Your task to perform on an android device: Go to internet settings Image 0: 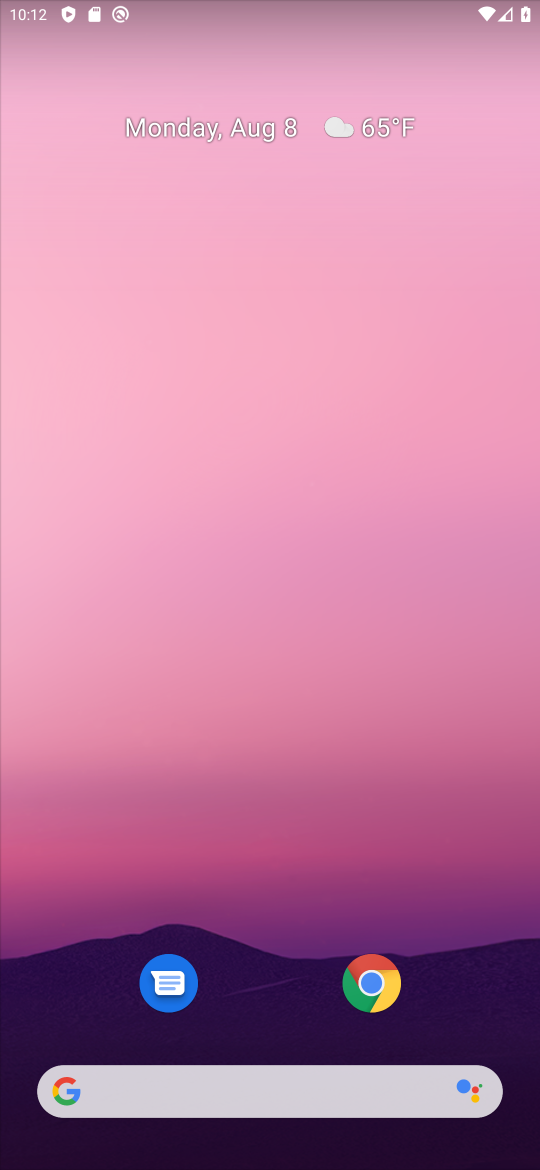
Step 0: drag from (253, 1044) to (281, 214)
Your task to perform on an android device: Go to internet settings Image 1: 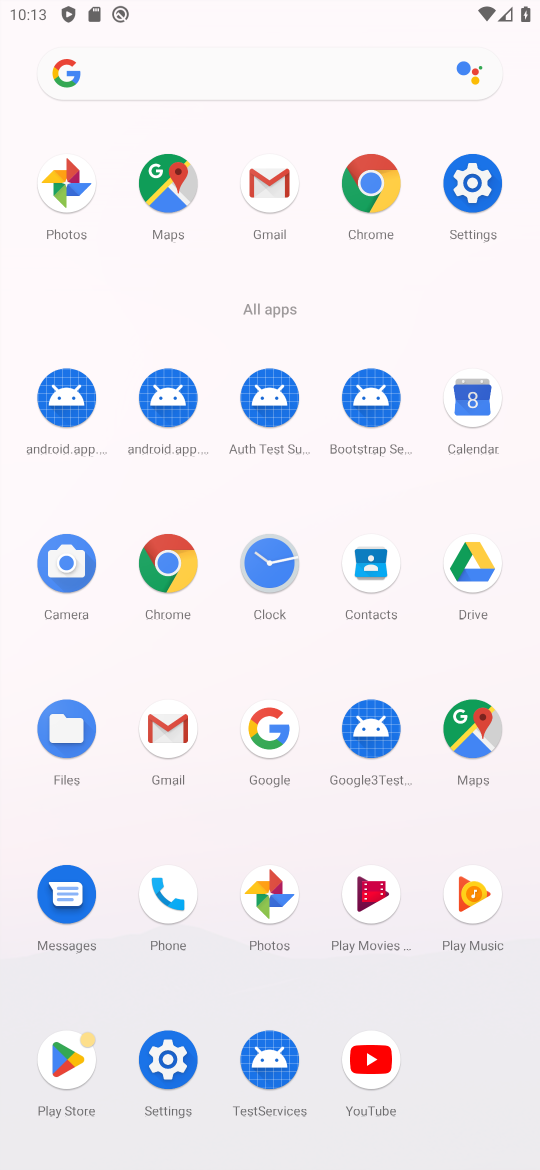
Step 1: click (495, 202)
Your task to perform on an android device: Go to internet settings Image 2: 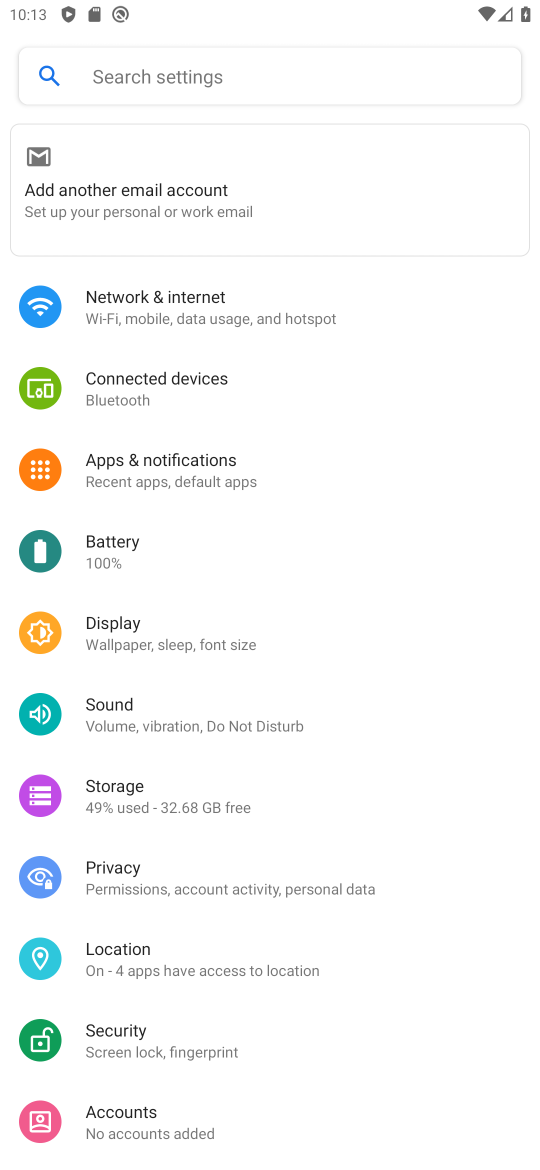
Step 2: click (270, 268)
Your task to perform on an android device: Go to internet settings Image 3: 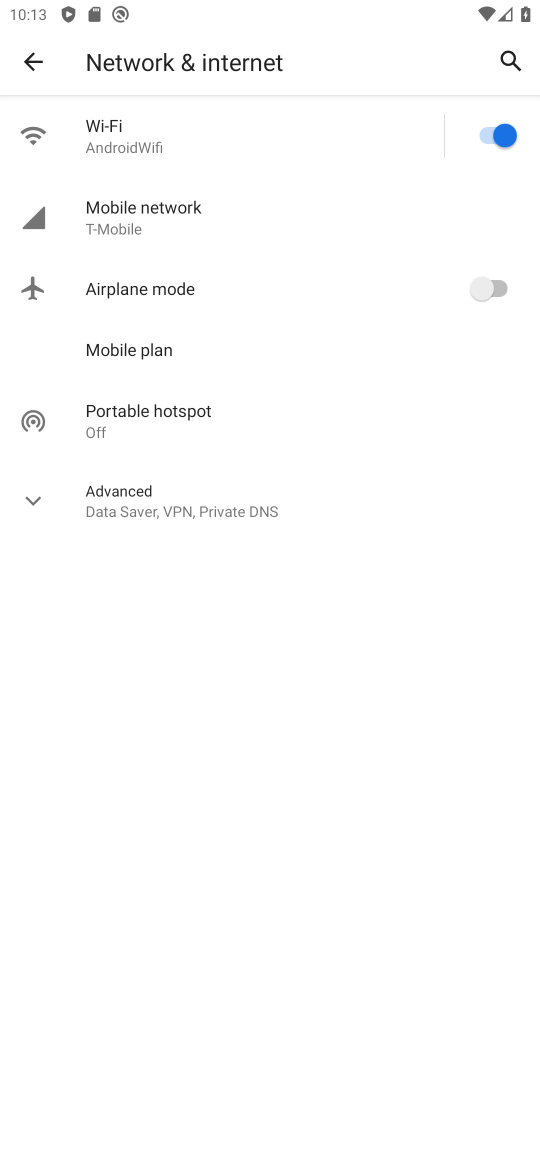
Step 3: task complete